Your task to perform on an android device: What is the news today? Image 0: 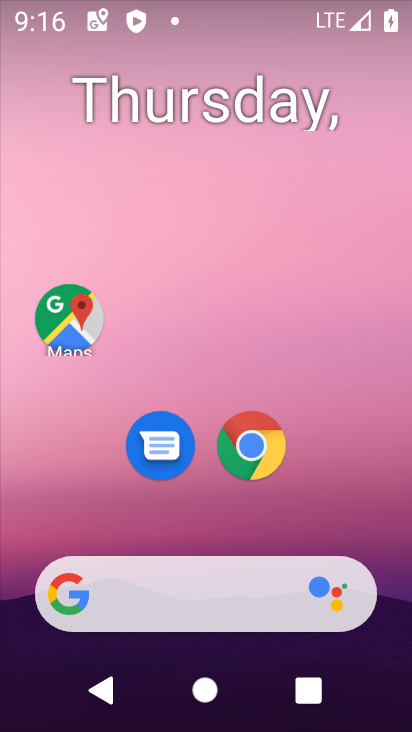
Step 0: drag from (3, 408) to (339, 319)
Your task to perform on an android device: What is the news today? Image 1: 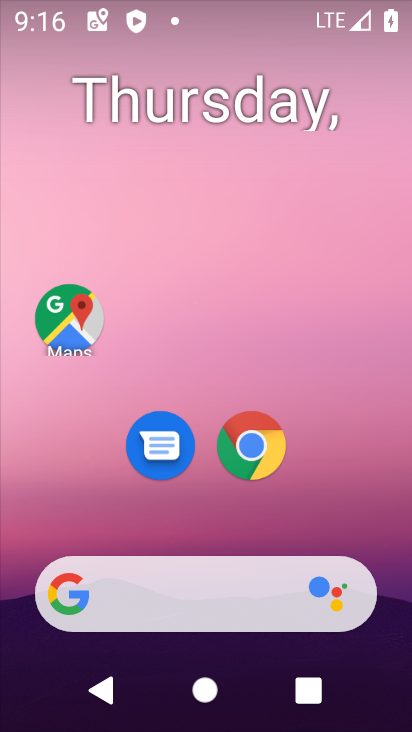
Step 1: task complete